Your task to perform on an android device: turn off airplane mode Image 0: 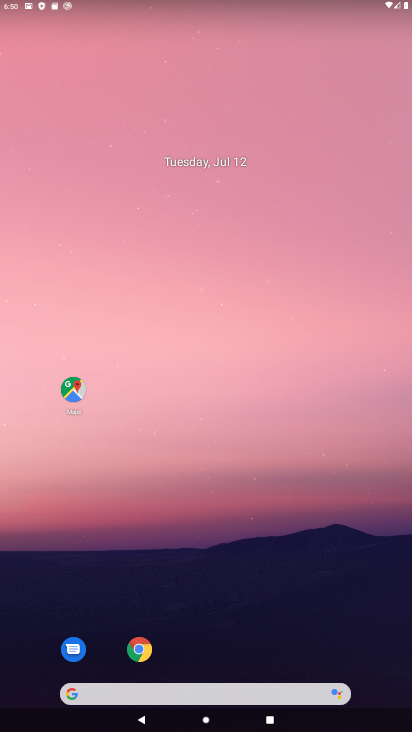
Step 0: drag from (198, 578) to (198, 169)
Your task to perform on an android device: turn off airplane mode Image 1: 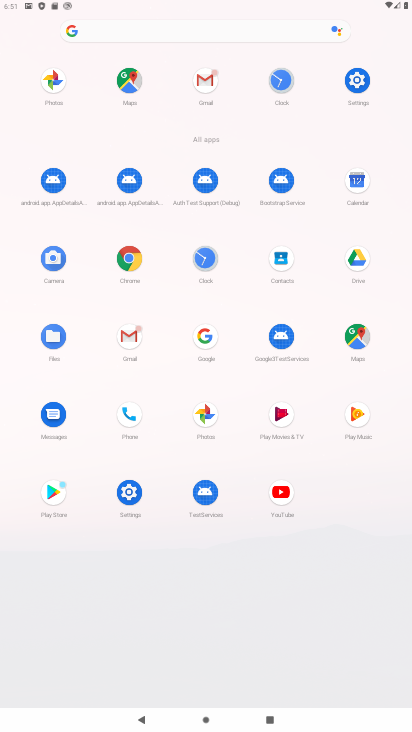
Step 1: click (359, 81)
Your task to perform on an android device: turn off airplane mode Image 2: 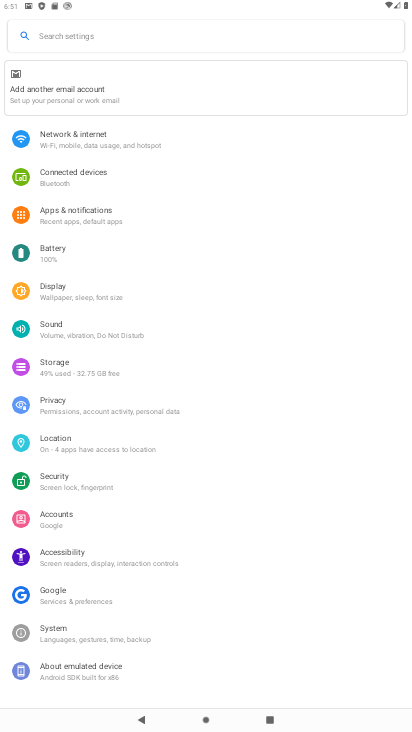
Step 2: click (111, 140)
Your task to perform on an android device: turn off airplane mode Image 3: 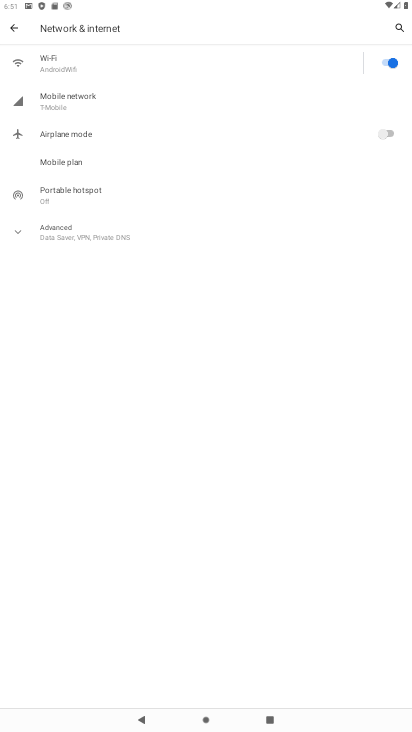
Step 3: task complete